Your task to perform on an android device: Open the calendar and show me this week's events Image 0: 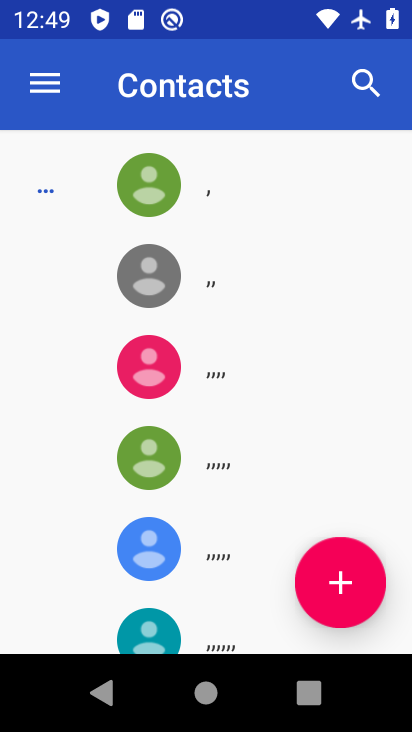
Step 0: press home button
Your task to perform on an android device: Open the calendar and show me this week's events Image 1: 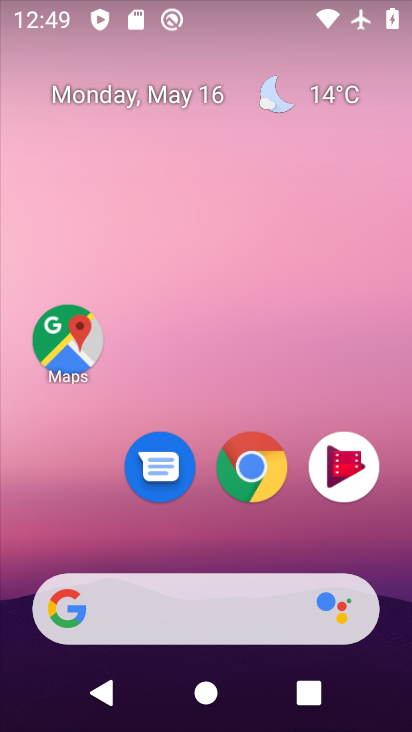
Step 1: drag from (197, 510) to (231, 179)
Your task to perform on an android device: Open the calendar and show me this week's events Image 2: 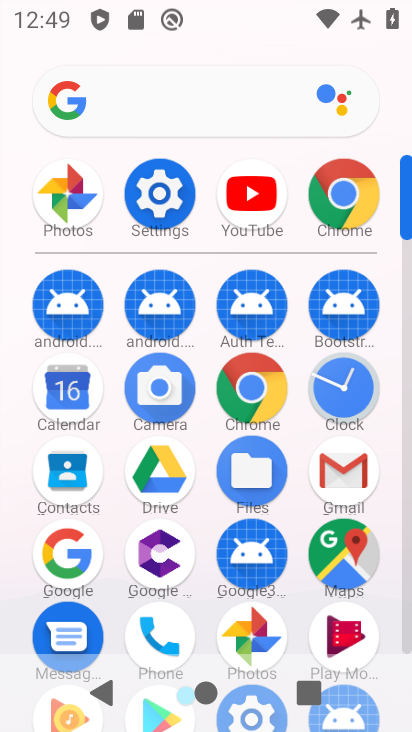
Step 2: click (71, 384)
Your task to perform on an android device: Open the calendar and show me this week's events Image 3: 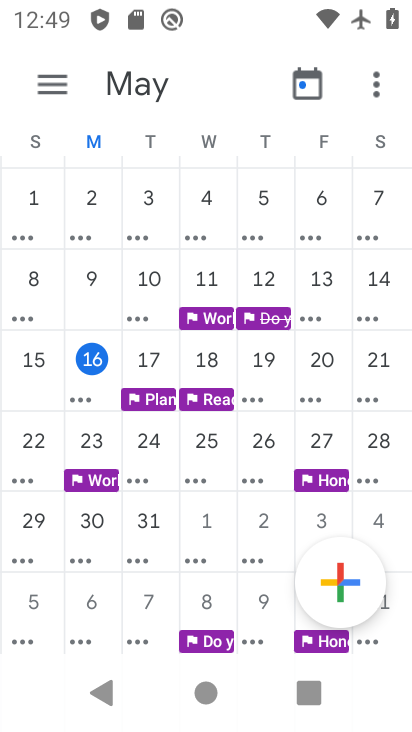
Step 3: click (171, 391)
Your task to perform on an android device: Open the calendar and show me this week's events Image 4: 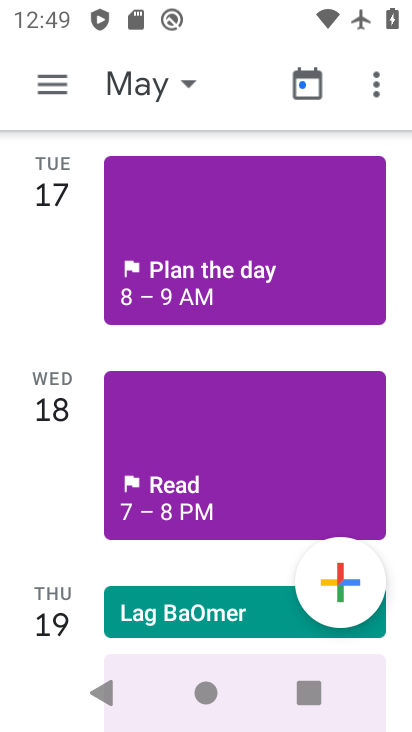
Step 4: task complete